Your task to perform on an android device: open chrome privacy settings Image 0: 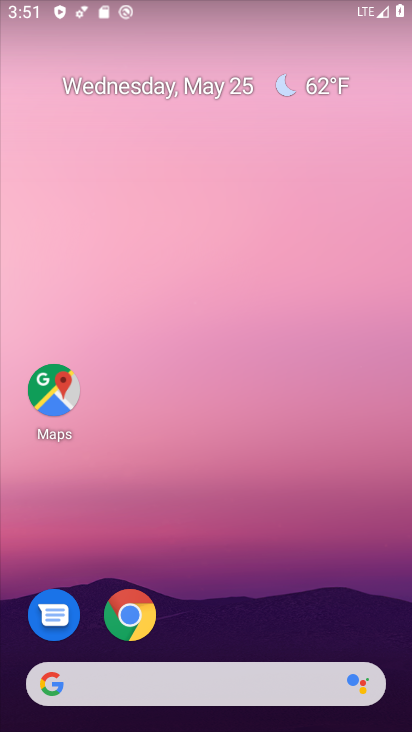
Step 0: drag from (306, 439) to (244, 87)
Your task to perform on an android device: open chrome privacy settings Image 1: 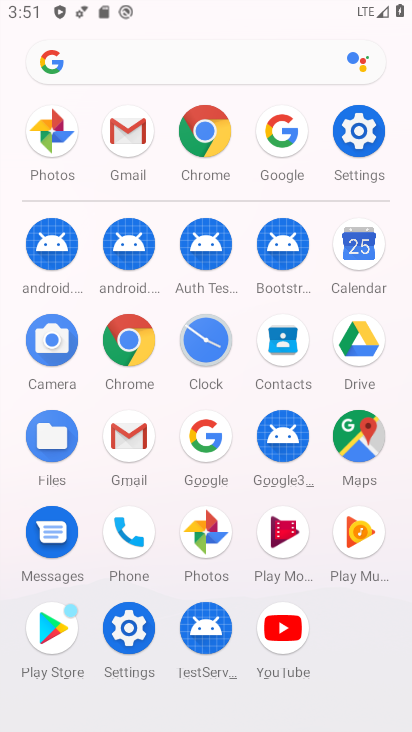
Step 1: click (205, 135)
Your task to perform on an android device: open chrome privacy settings Image 2: 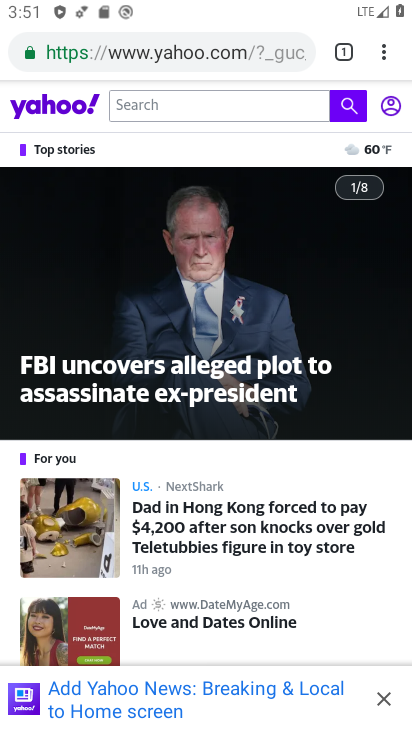
Step 2: click (387, 48)
Your task to perform on an android device: open chrome privacy settings Image 3: 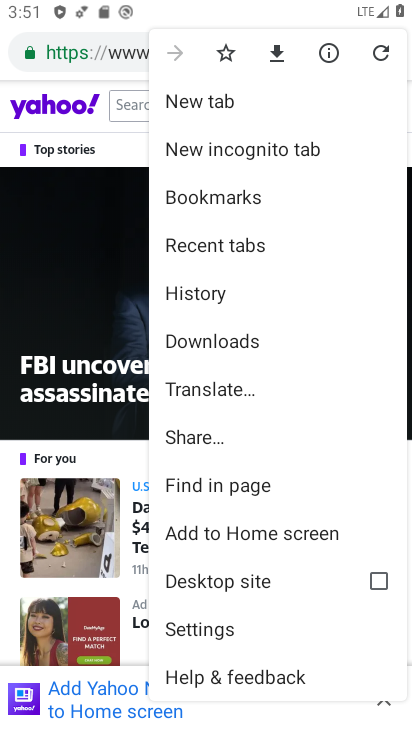
Step 3: click (267, 627)
Your task to perform on an android device: open chrome privacy settings Image 4: 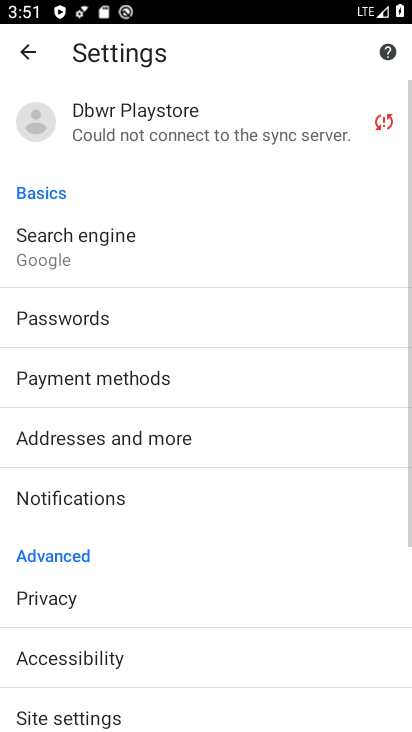
Step 4: click (160, 606)
Your task to perform on an android device: open chrome privacy settings Image 5: 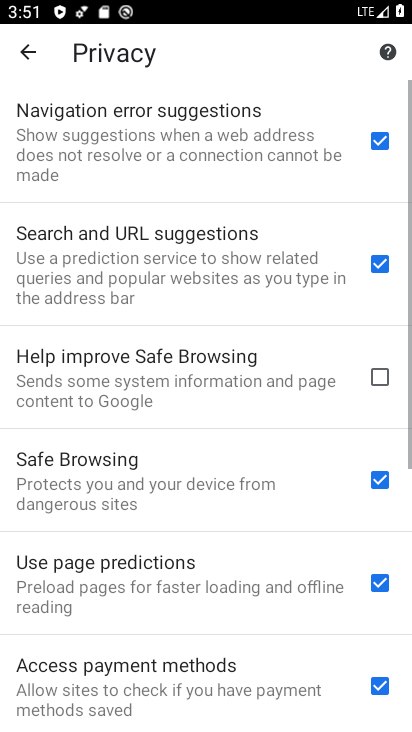
Step 5: task complete